Your task to perform on an android device: change text size in settings app Image 0: 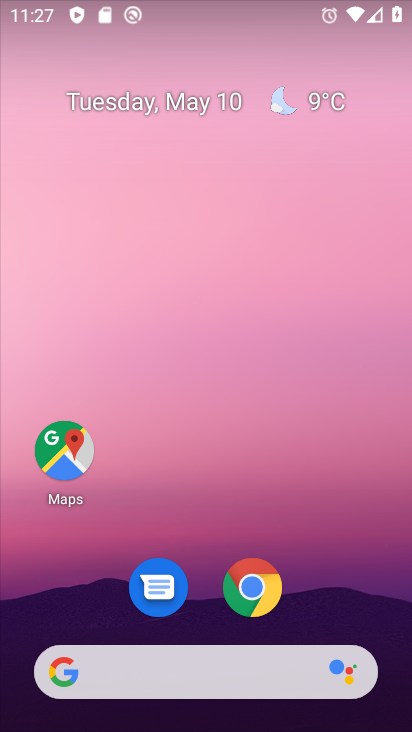
Step 0: drag from (341, 566) to (299, 0)
Your task to perform on an android device: change text size in settings app Image 1: 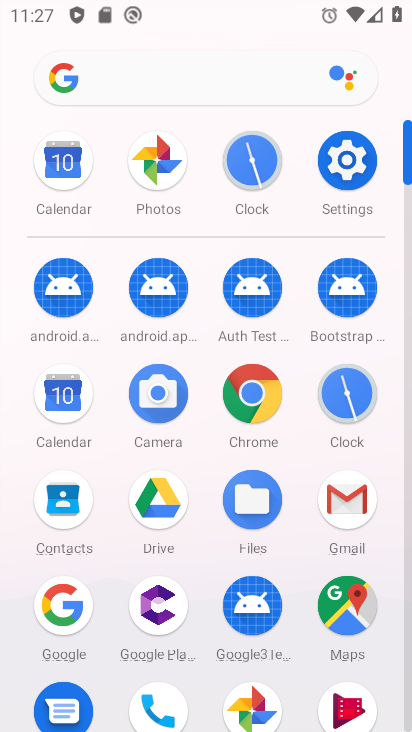
Step 1: click (365, 155)
Your task to perform on an android device: change text size in settings app Image 2: 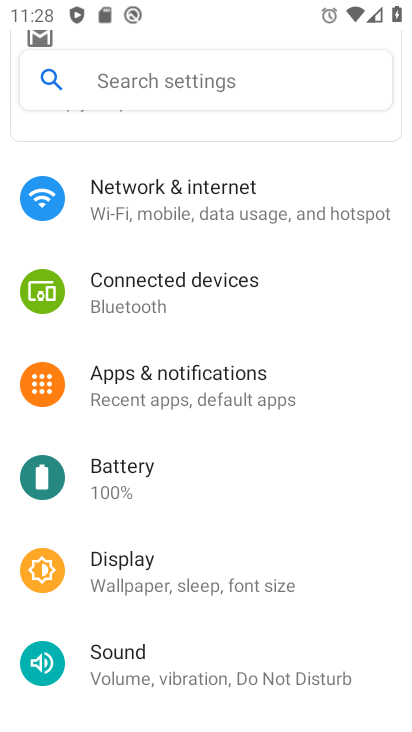
Step 2: click (142, 578)
Your task to perform on an android device: change text size in settings app Image 3: 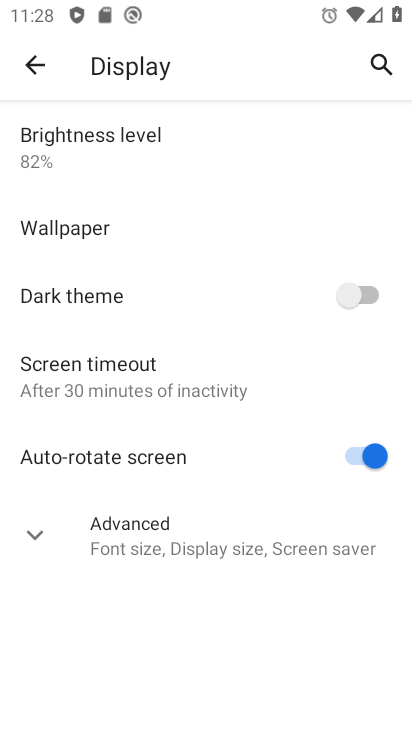
Step 3: click (36, 545)
Your task to perform on an android device: change text size in settings app Image 4: 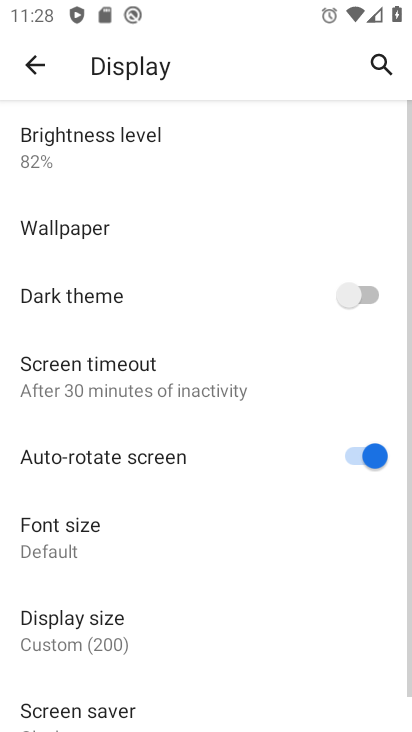
Step 4: click (70, 553)
Your task to perform on an android device: change text size in settings app Image 5: 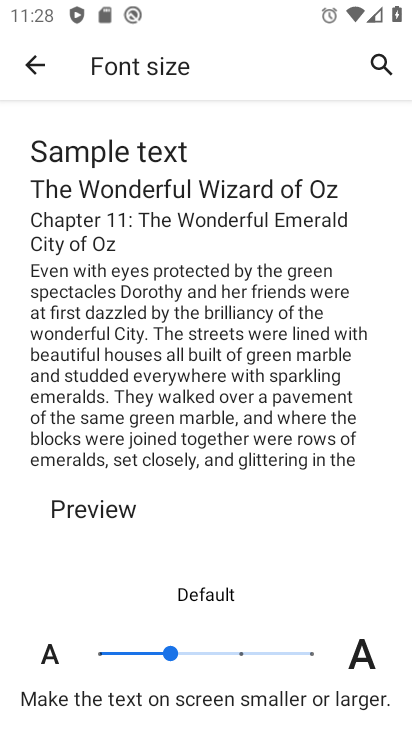
Step 5: click (230, 650)
Your task to perform on an android device: change text size in settings app Image 6: 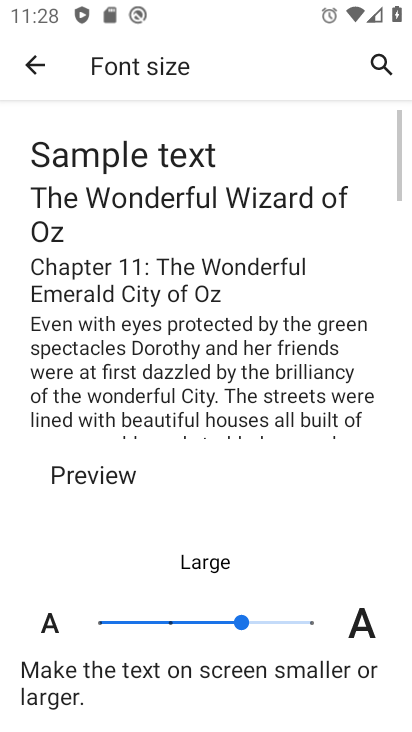
Step 6: task complete